Your task to perform on an android device: toggle translation in the chrome app Image 0: 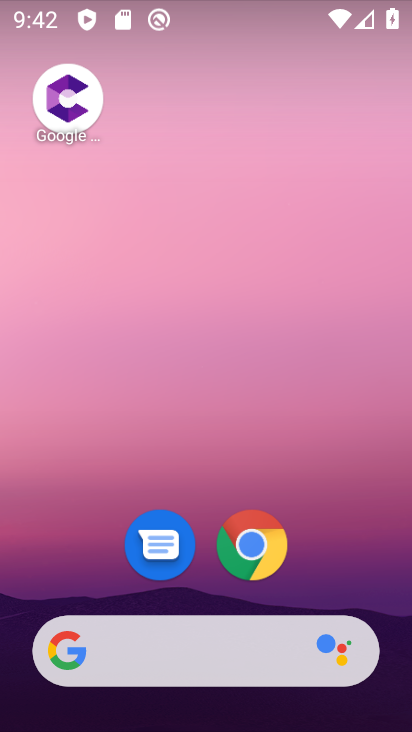
Step 0: click (257, 530)
Your task to perform on an android device: toggle translation in the chrome app Image 1: 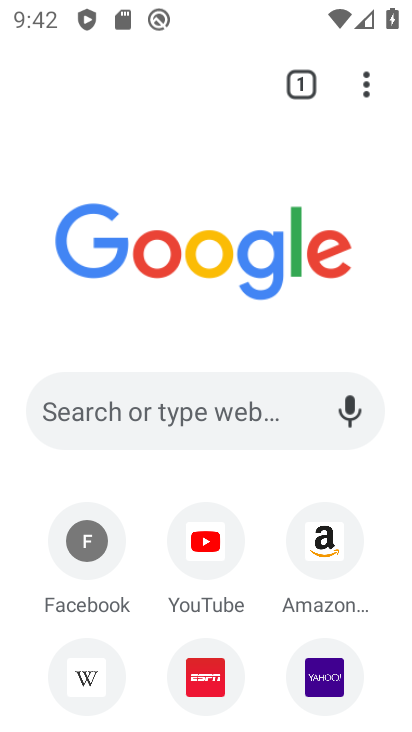
Step 1: click (359, 86)
Your task to perform on an android device: toggle translation in the chrome app Image 2: 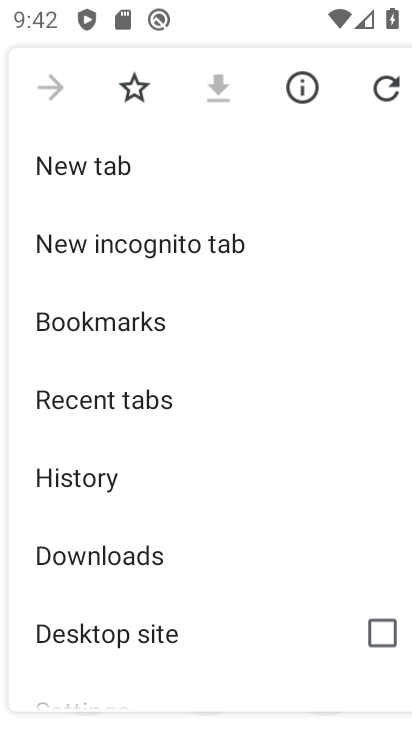
Step 2: drag from (209, 456) to (239, 172)
Your task to perform on an android device: toggle translation in the chrome app Image 3: 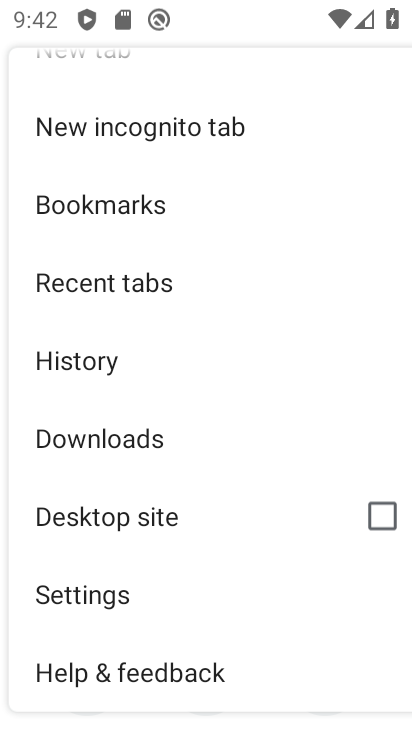
Step 3: click (109, 595)
Your task to perform on an android device: toggle translation in the chrome app Image 4: 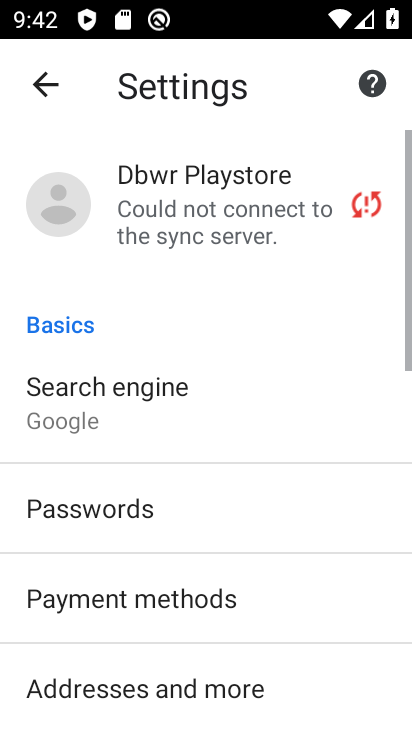
Step 4: drag from (214, 527) to (249, 306)
Your task to perform on an android device: toggle translation in the chrome app Image 5: 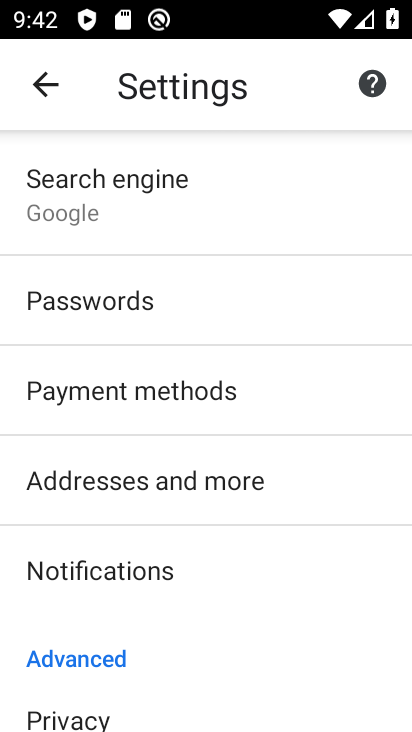
Step 5: drag from (244, 576) to (221, 203)
Your task to perform on an android device: toggle translation in the chrome app Image 6: 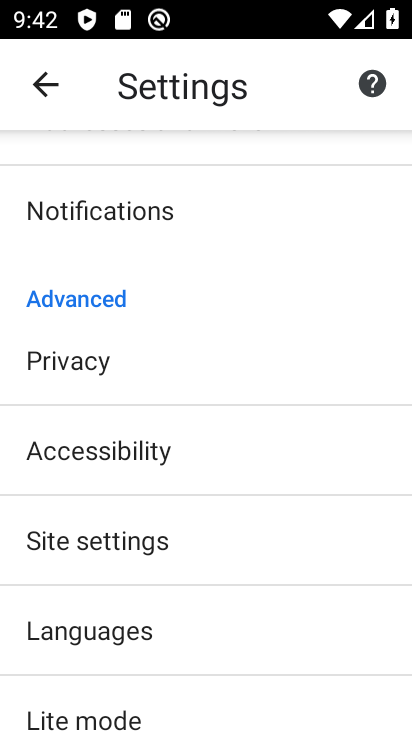
Step 6: click (201, 635)
Your task to perform on an android device: toggle translation in the chrome app Image 7: 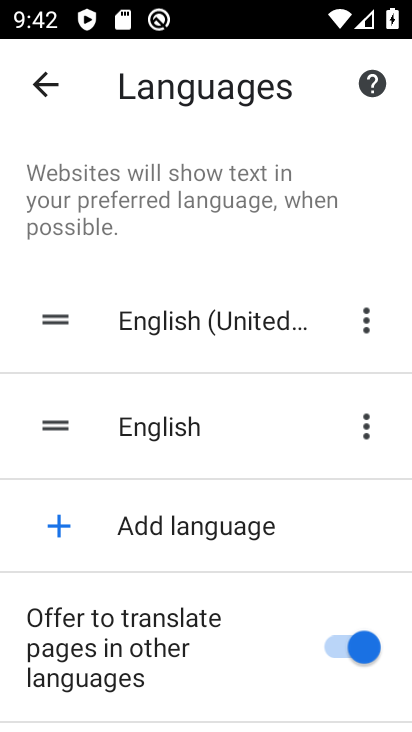
Step 7: click (335, 643)
Your task to perform on an android device: toggle translation in the chrome app Image 8: 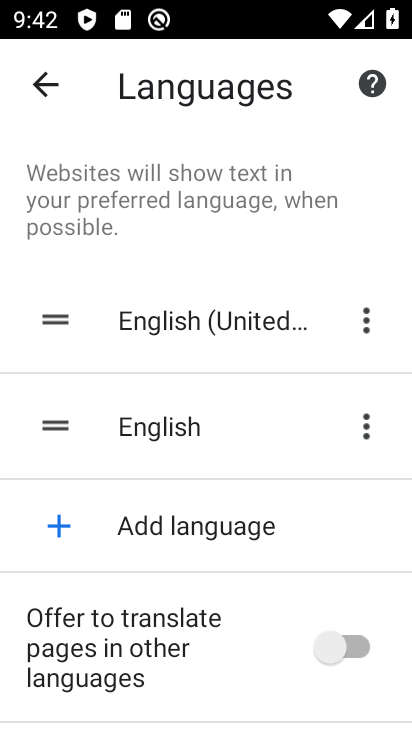
Step 8: task complete